Your task to perform on an android device: Go to display settings Image 0: 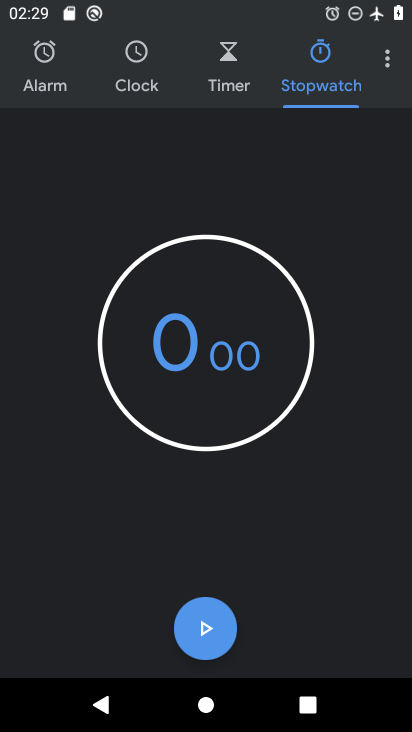
Step 0: press home button
Your task to perform on an android device: Go to display settings Image 1: 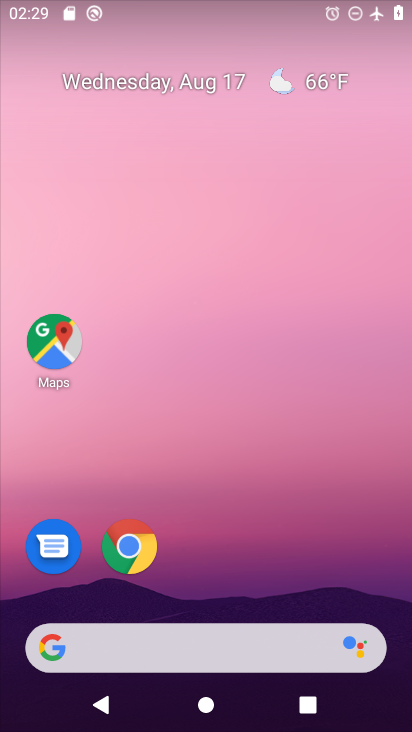
Step 1: drag from (232, 303) to (222, 113)
Your task to perform on an android device: Go to display settings Image 2: 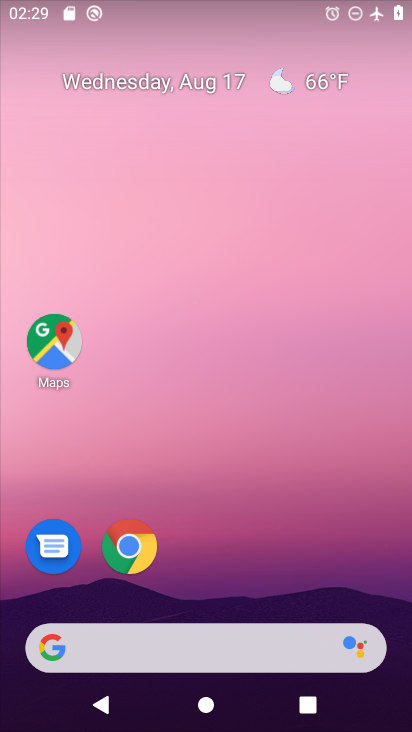
Step 2: drag from (219, 522) to (187, 221)
Your task to perform on an android device: Go to display settings Image 3: 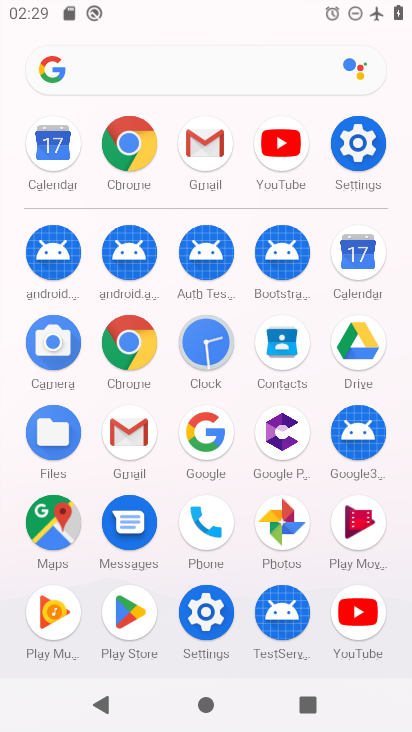
Step 3: click (359, 147)
Your task to perform on an android device: Go to display settings Image 4: 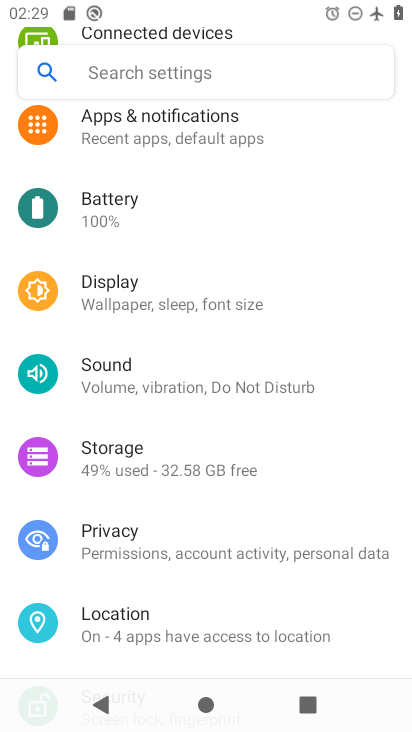
Step 4: click (107, 281)
Your task to perform on an android device: Go to display settings Image 5: 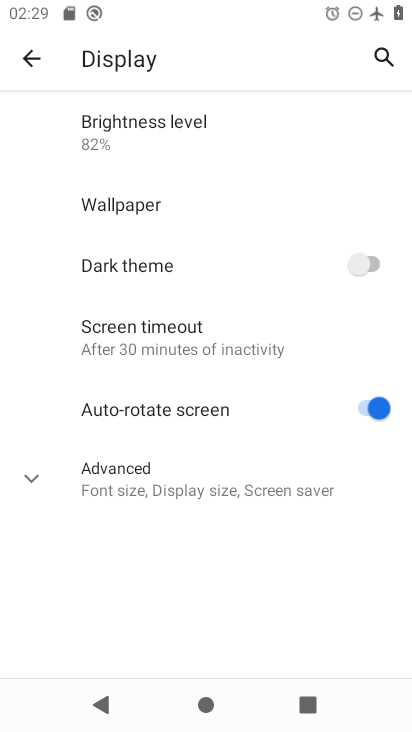
Step 5: task complete